Your task to perform on an android device: Go to sound settings Image 0: 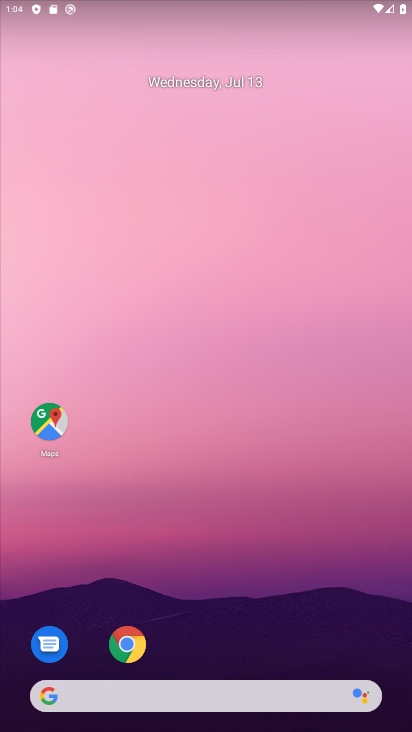
Step 0: press home button
Your task to perform on an android device: Go to sound settings Image 1: 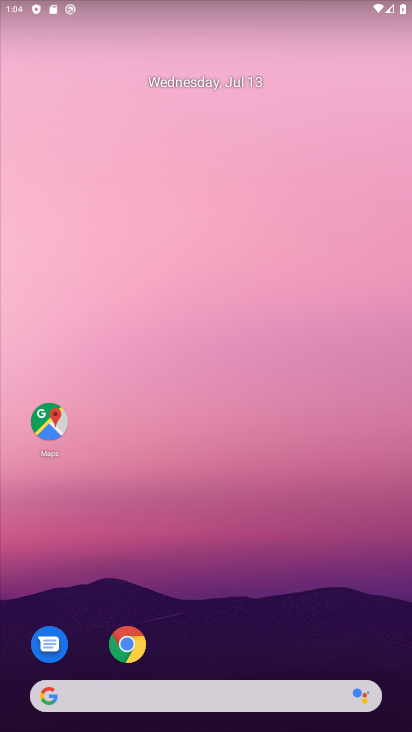
Step 1: drag from (237, 463) to (264, 36)
Your task to perform on an android device: Go to sound settings Image 2: 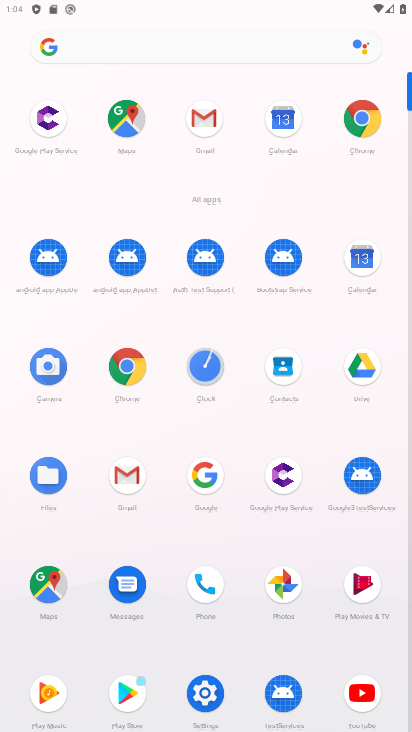
Step 2: click (205, 688)
Your task to perform on an android device: Go to sound settings Image 3: 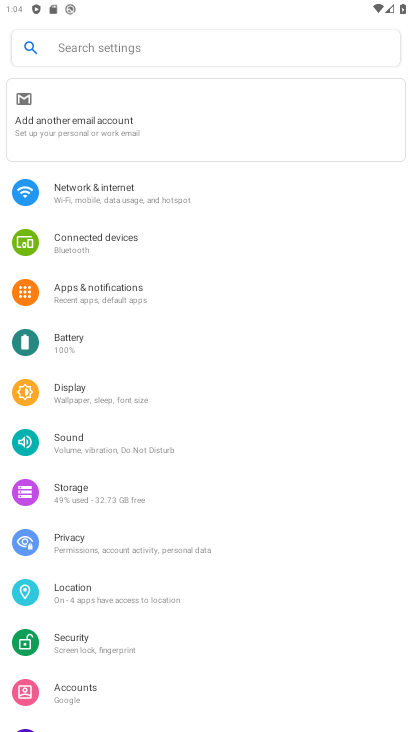
Step 3: click (88, 443)
Your task to perform on an android device: Go to sound settings Image 4: 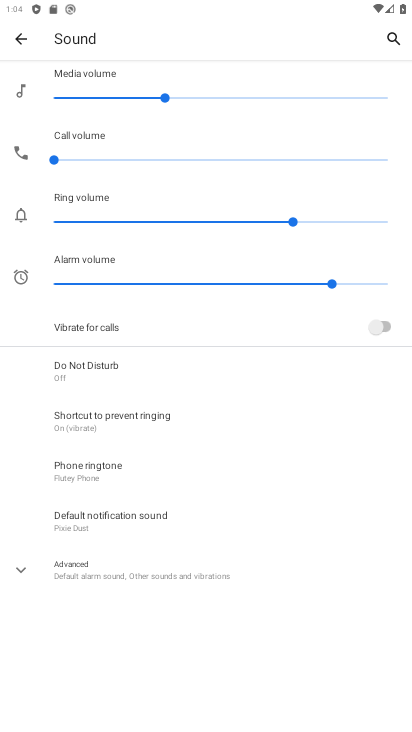
Step 4: task complete